Your task to perform on an android device: star an email in the gmail app Image 0: 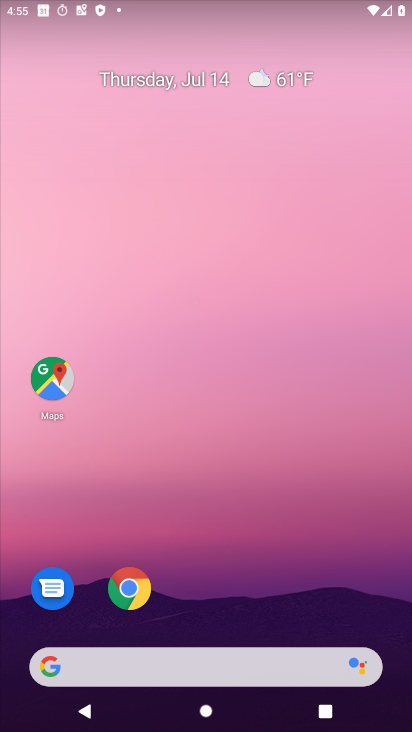
Step 0: drag from (175, 661) to (215, 152)
Your task to perform on an android device: star an email in the gmail app Image 1: 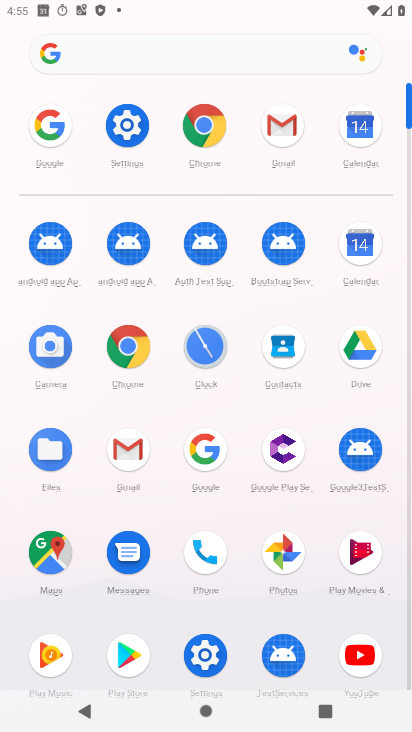
Step 1: click (279, 124)
Your task to perform on an android device: star an email in the gmail app Image 2: 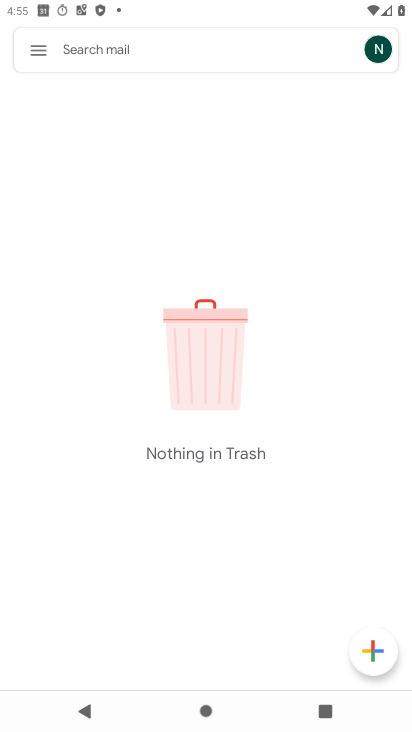
Step 2: click (35, 41)
Your task to perform on an android device: star an email in the gmail app Image 3: 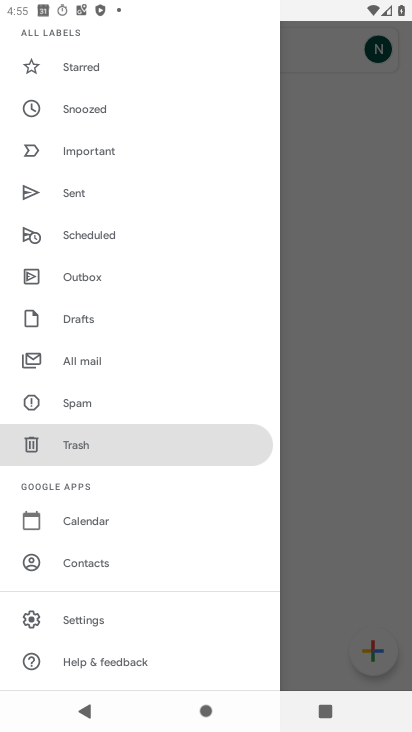
Step 3: drag from (95, 102) to (105, 276)
Your task to perform on an android device: star an email in the gmail app Image 4: 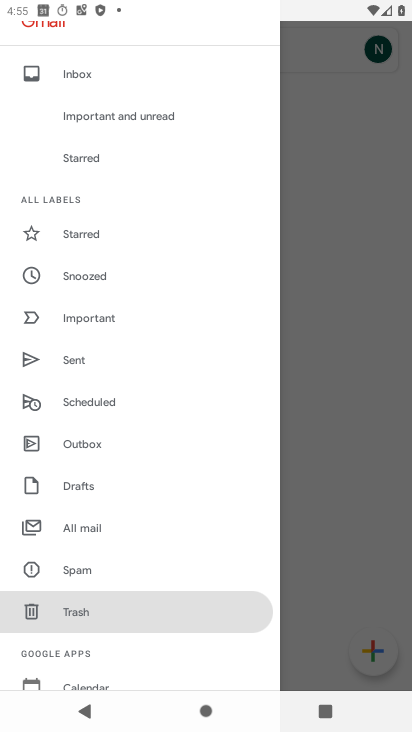
Step 4: click (65, 78)
Your task to perform on an android device: star an email in the gmail app Image 5: 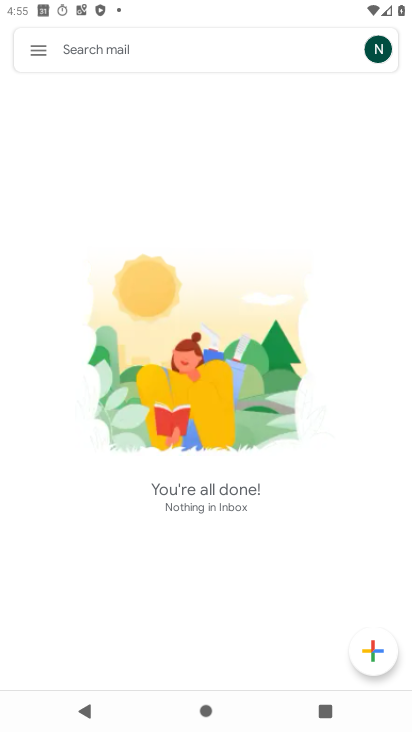
Step 5: click (35, 50)
Your task to perform on an android device: star an email in the gmail app Image 6: 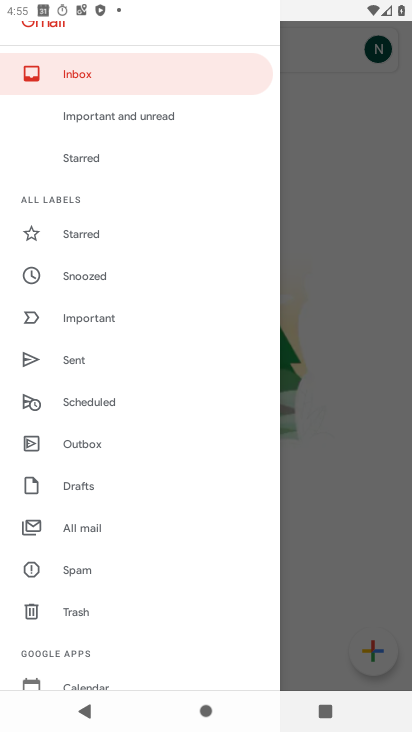
Step 6: click (93, 523)
Your task to perform on an android device: star an email in the gmail app Image 7: 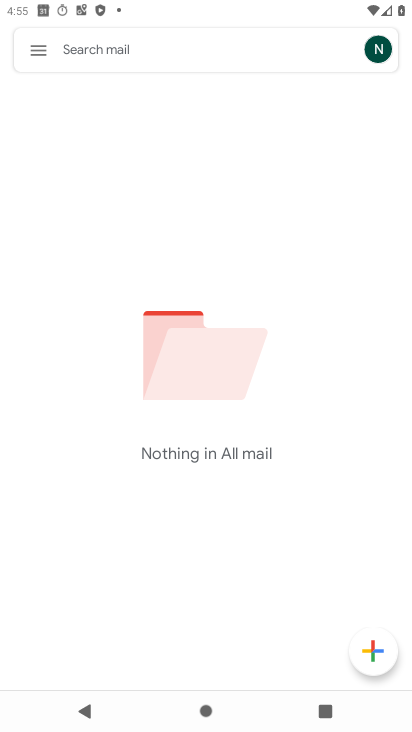
Step 7: click (40, 54)
Your task to perform on an android device: star an email in the gmail app Image 8: 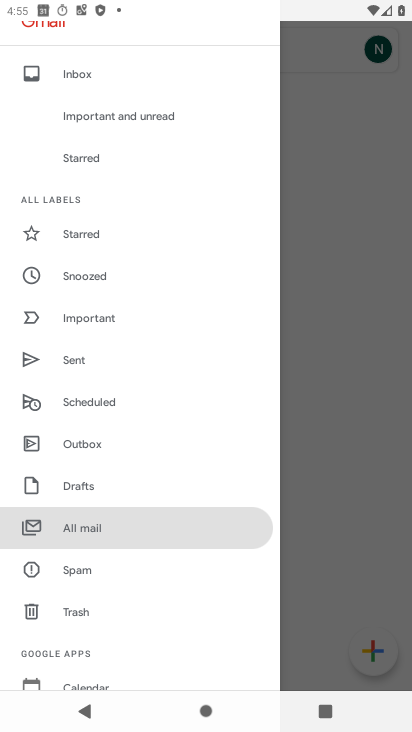
Step 8: click (87, 606)
Your task to perform on an android device: star an email in the gmail app Image 9: 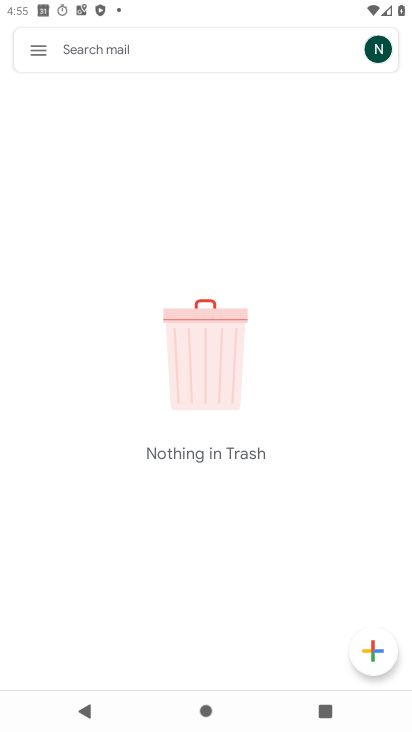
Step 9: click (36, 49)
Your task to perform on an android device: star an email in the gmail app Image 10: 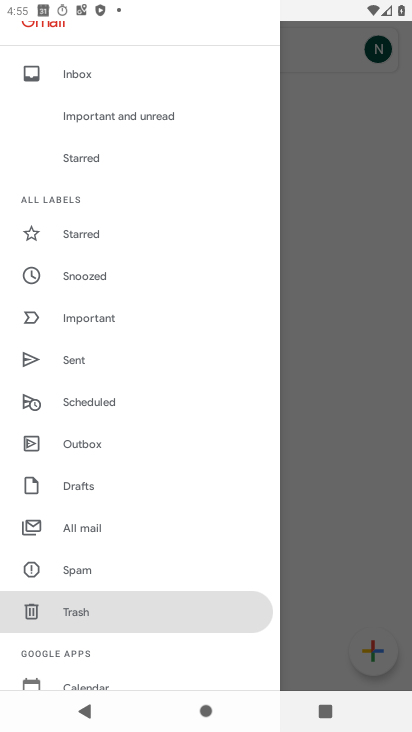
Step 10: click (71, 559)
Your task to perform on an android device: star an email in the gmail app Image 11: 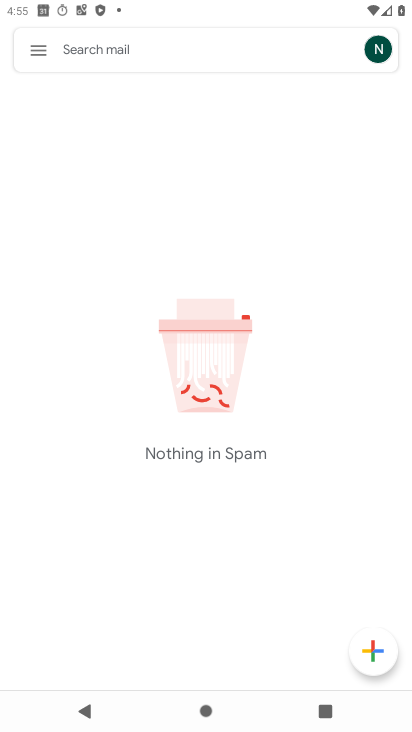
Step 11: click (27, 43)
Your task to perform on an android device: star an email in the gmail app Image 12: 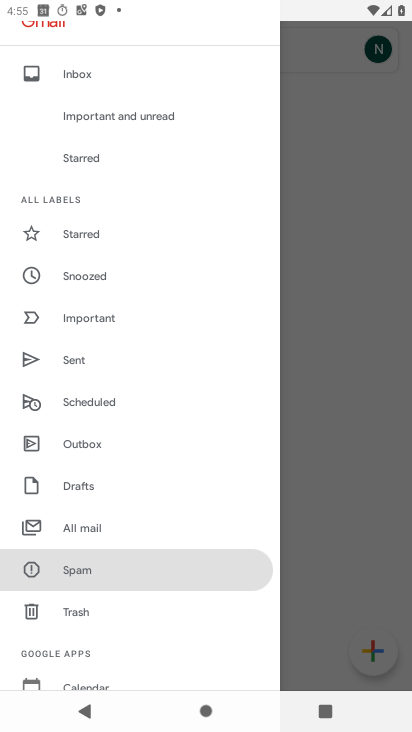
Step 12: click (84, 476)
Your task to perform on an android device: star an email in the gmail app Image 13: 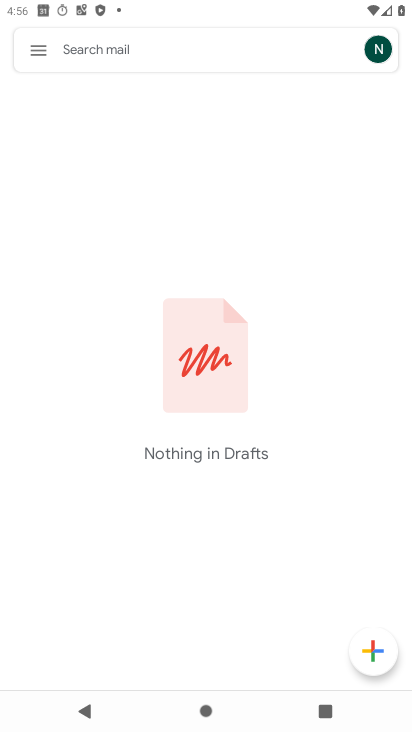
Step 13: click (39, 46)
Your task to perform on an android device: star an email in the gmail app Image 14: 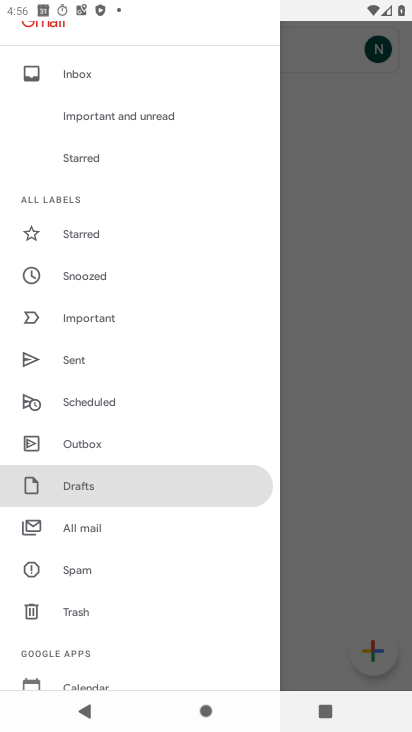
Step 14: click (96, 445)
Your task to perform on an android device: star an email in the gmail app Image 15: 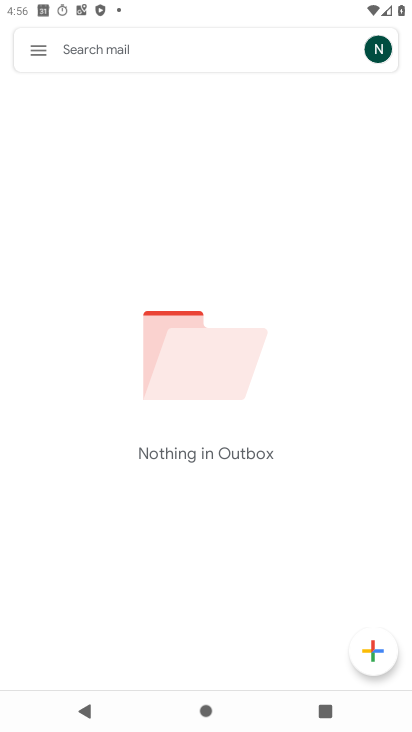
Step 15: click (44, 57)
Your task to perform on an android device: star an email in the gmail app Image 16: 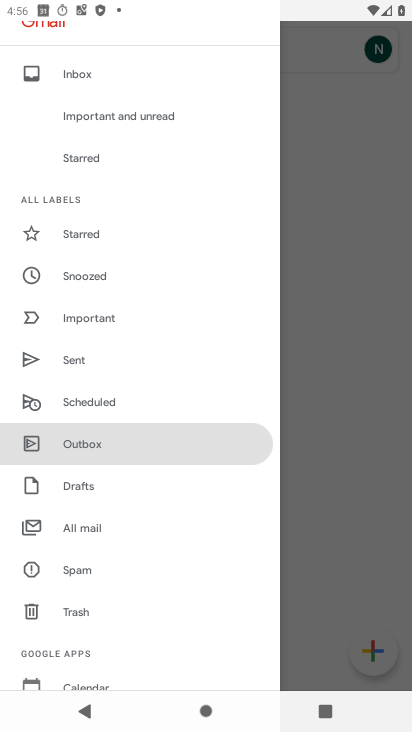
Step 16: click (83, 386)
Your task to perform on an android device: star an email in the gmail app Image 17: 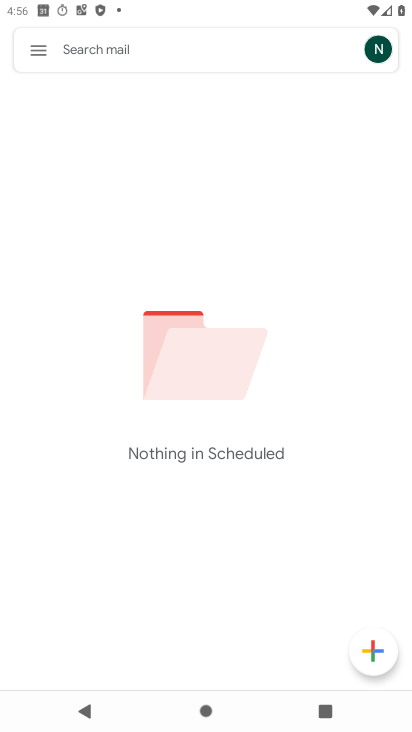
Step 17: task complete